Your task to perform on an android device: Open notification settings Image 0: 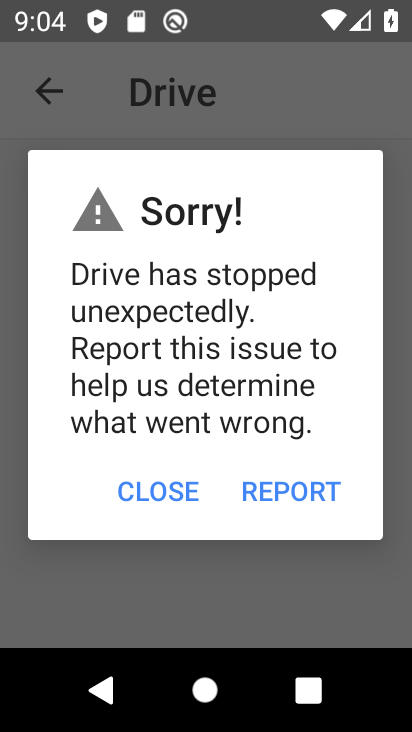
Step 0: press home button
Your task to perform on an android device: Open notification settings Image 1: 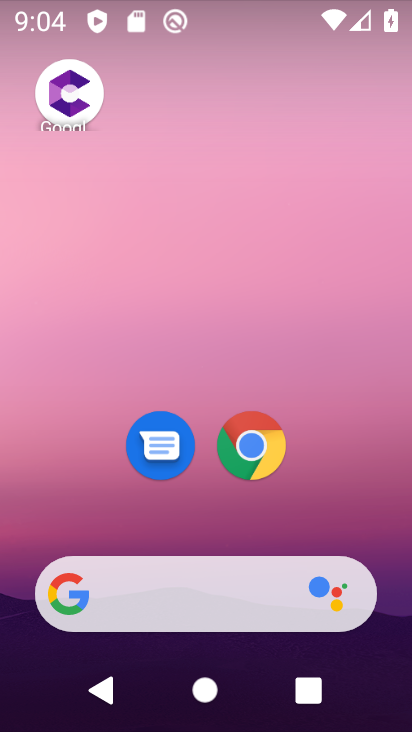
Step 1: drag from (186, 522) to (207, 0)
Your task to perform on an android device: Open notification settings Image 2: 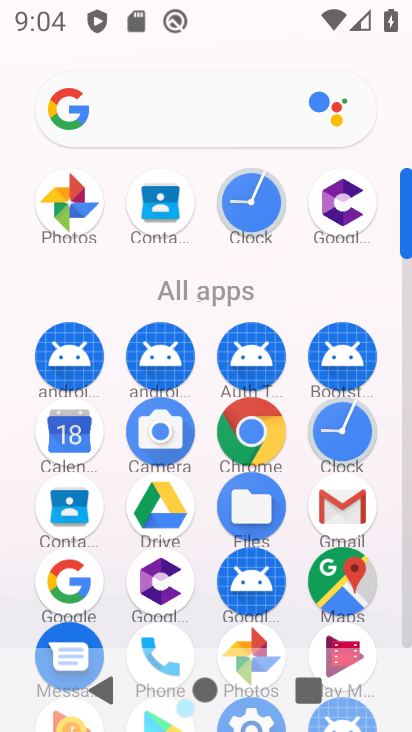
Step 2: drag from (244, 545) to (252, 144)
Your task to perform on an android device: Open notification settings Image 3: 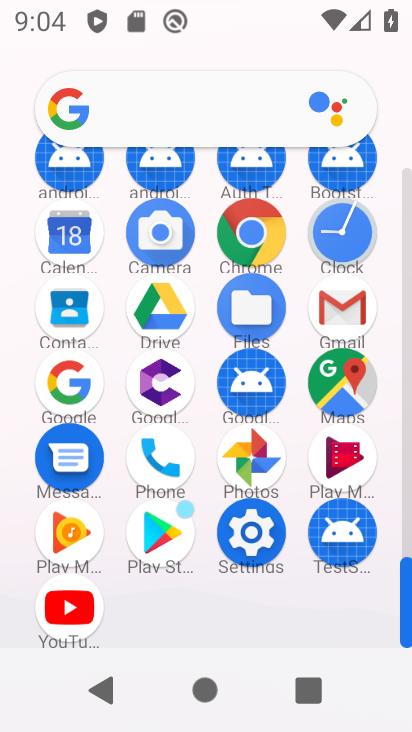
Step 3: drag from (260, 524) to (152, 218)
Your task to perform on an android device: Open notification settings Image 4: 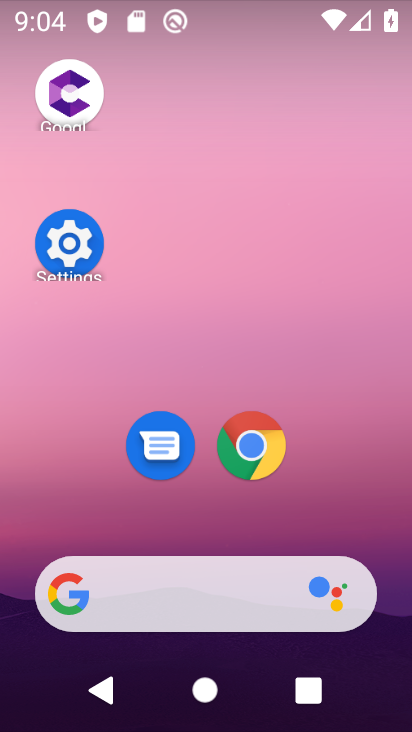
Step 4: click (51, 260)
Your task to perform on an android device: Open notification settings Image 5: 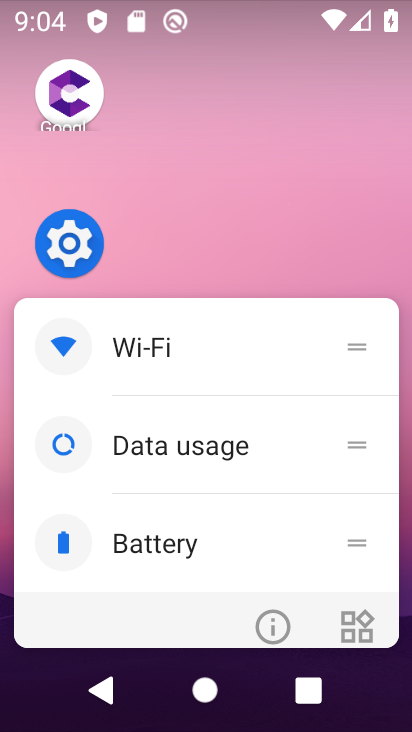
Step 5: click (72, 229)
Your task to perform on an android device: Open notification settings Image 6: 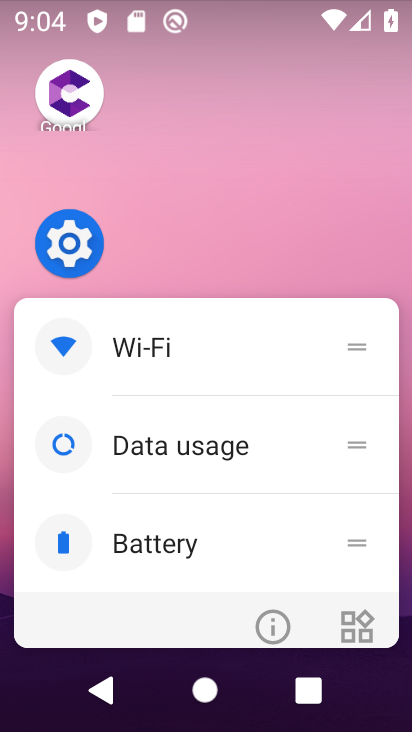
Step 6: click (89, 215)
Your task to perform on an android device: Open notification settings Image 7: 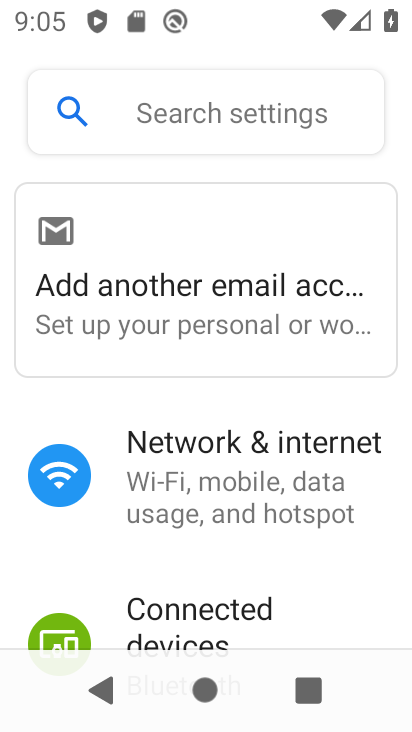
Step 7: drag from (251, 521) to (253, 149)
Your task to perform on an android device: Open notification settings Image 8: 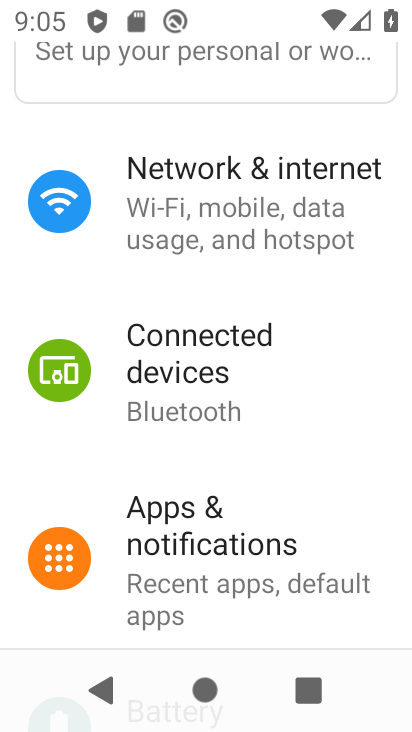
Step 8: click (250, 548)
Your task to perform on an android device: Open notification settings Image 9: 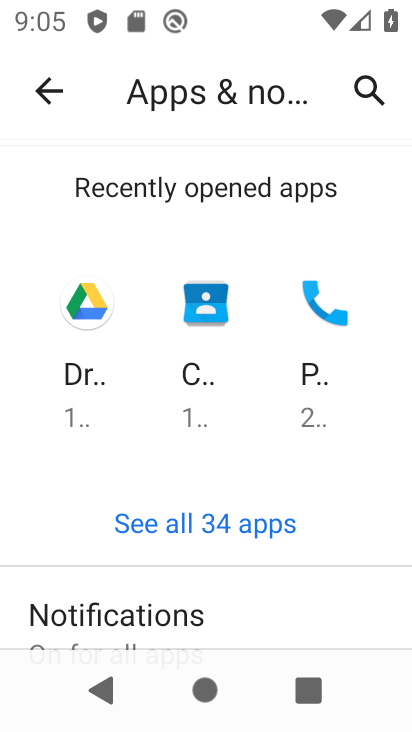
Step 9: task complete